Your task to perform on an android device: Open battery settings Image 0: 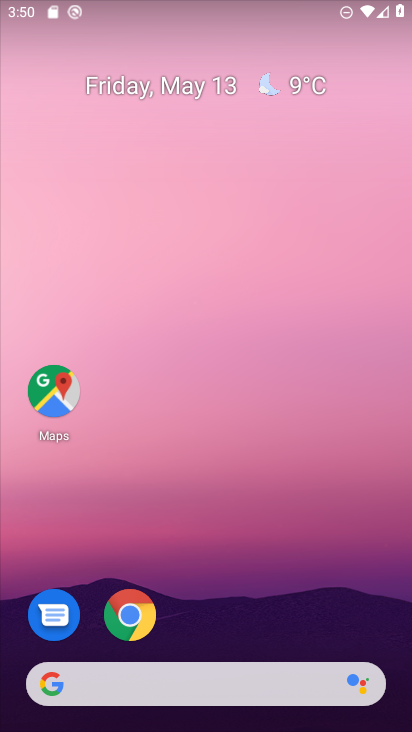
Step 0: drag from (275, 601) to (323, 17)
Your task to perform on an android device: Open battery settings Image 1: 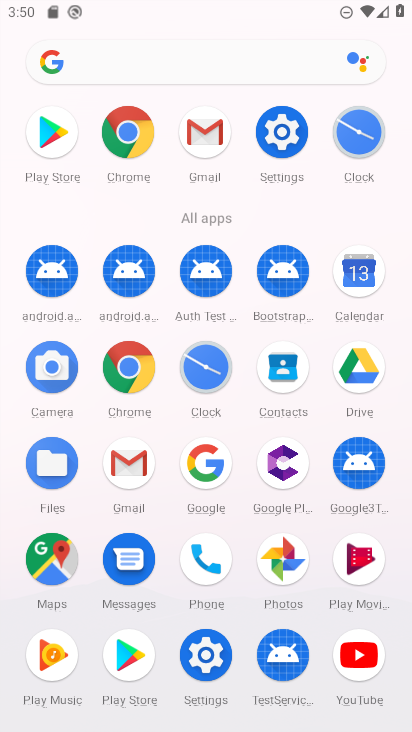
Step 1: click (281, 130)
Your task to perform on an android device: Open battery settings Image 2: 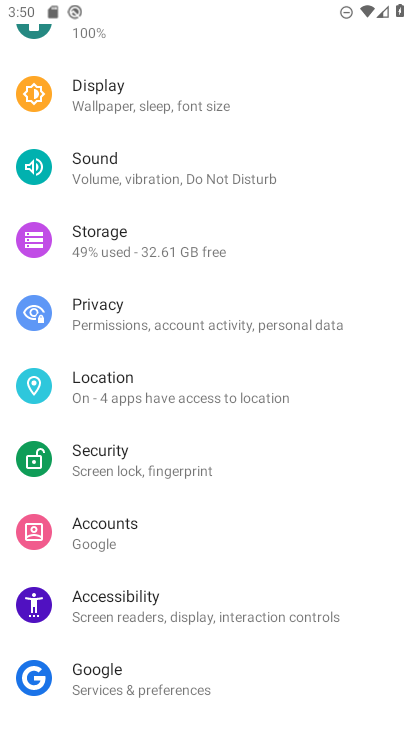
Step 2: drag from (181, 158) to (144, 625)
Your task to perform on an android device: Open battery settings Image 3: 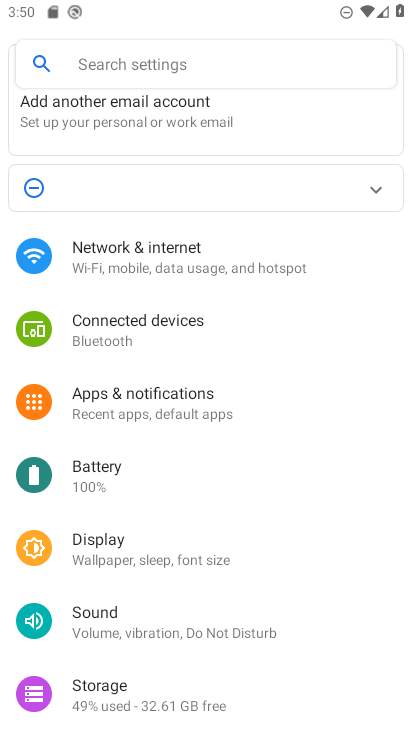
Step 3: click (81, 466)
Your task to perform on an android device: Open battery settings Image 4: 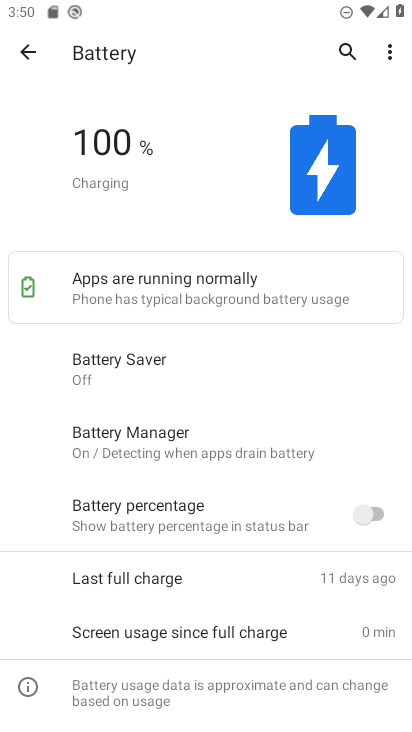
Step 4: task complete